Your task to perform on an android device: set an alarm Image 0: 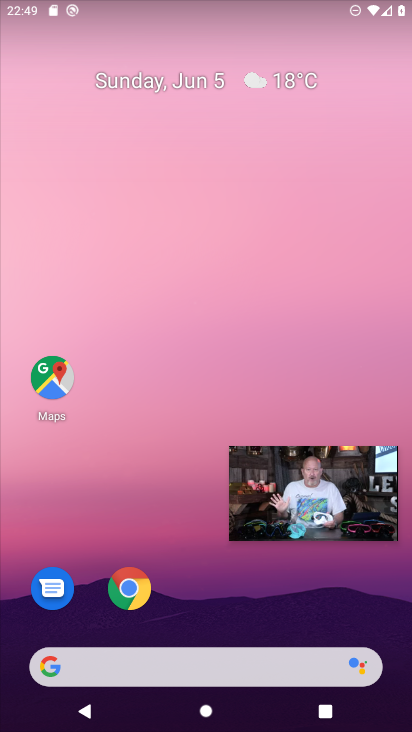
Step 0: drag from (377, 600) to (373, 105)
Your task to perform on an android device: set an alarm Image 1: 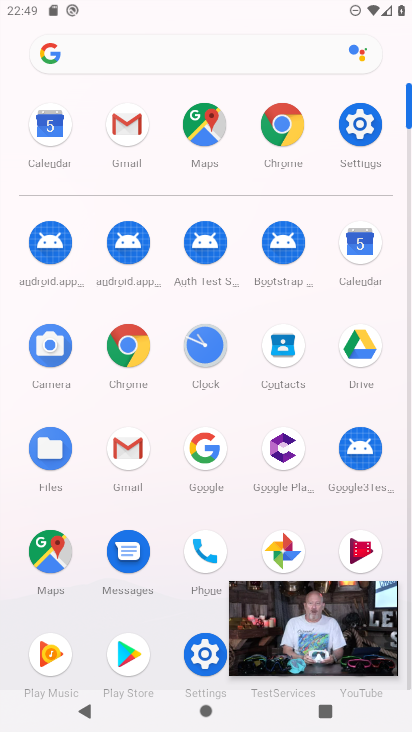
Step 1: click (199, 349)
Your task to perform on an android device: set an alarm Image 2: 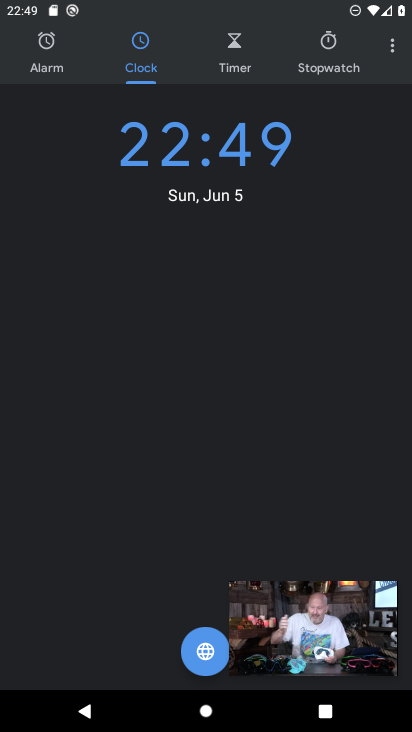
Step 2: click (37, 51)
Your task to perform on an android device: set an alarm Image 3: 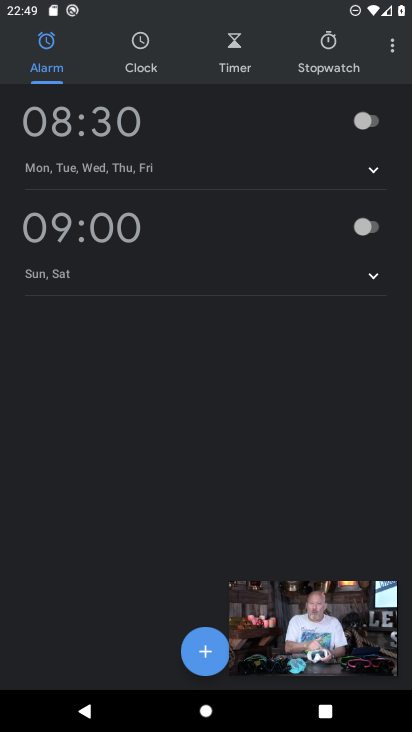
Step 3: click (204, 648)
Your task to perform on an android device: set an alarm Image 4: 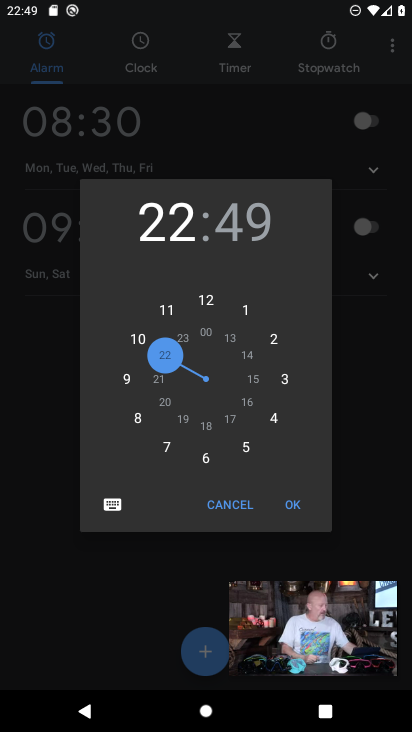
Step 4: click (295, 508)
Your task to perform on an android device: set an alarm Image 5: 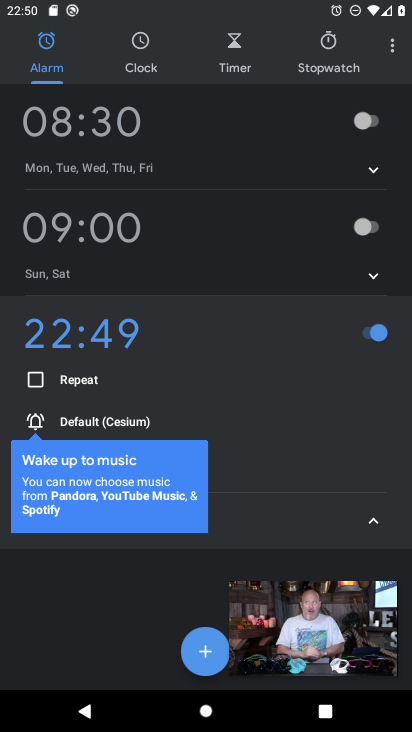
Step 5: task complete